Your task to perform on an android device: Open CNN.com Image 0: 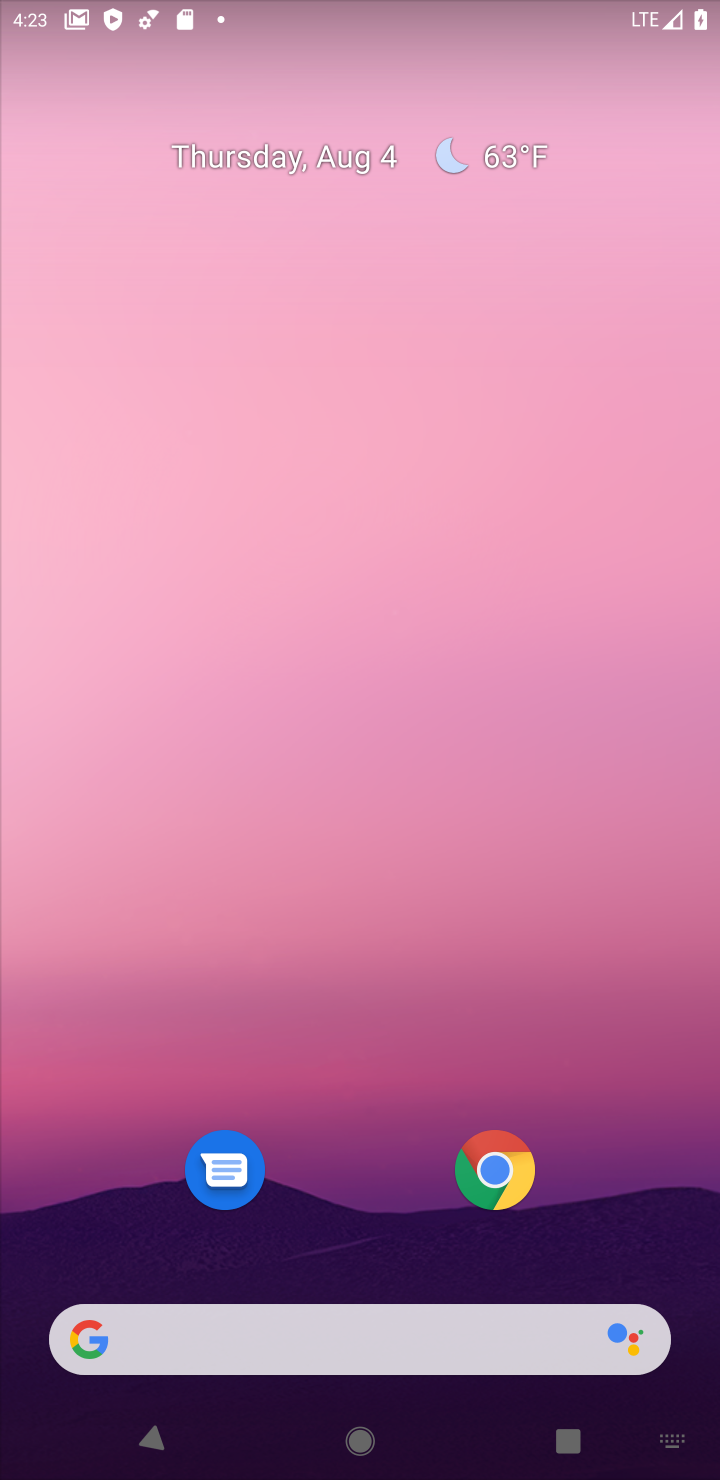
Step 0: click (508, 1168)
Your task to perform on an android device: Open CNN.com Image 1: 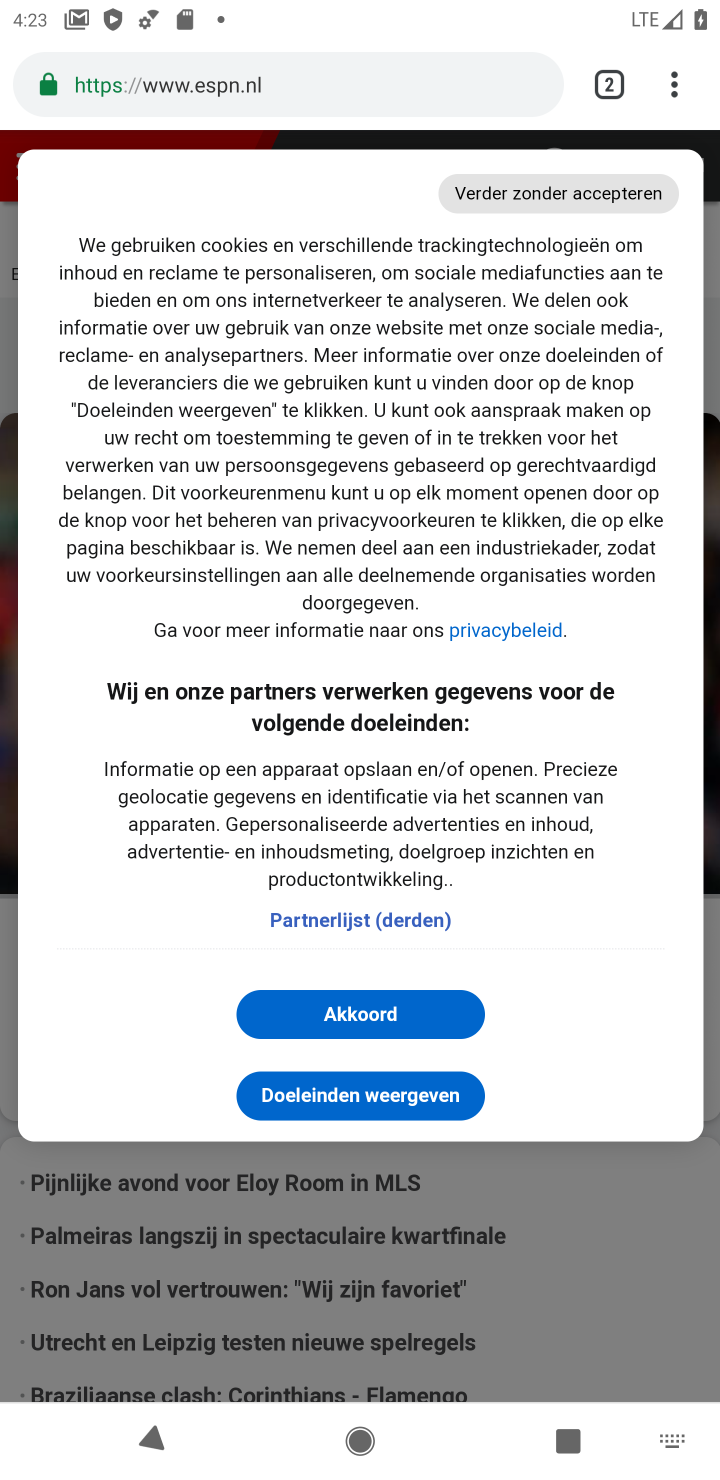
Step 1: click (427, 72)
Your task to perform on an android device: Open CNN.com Image 2: 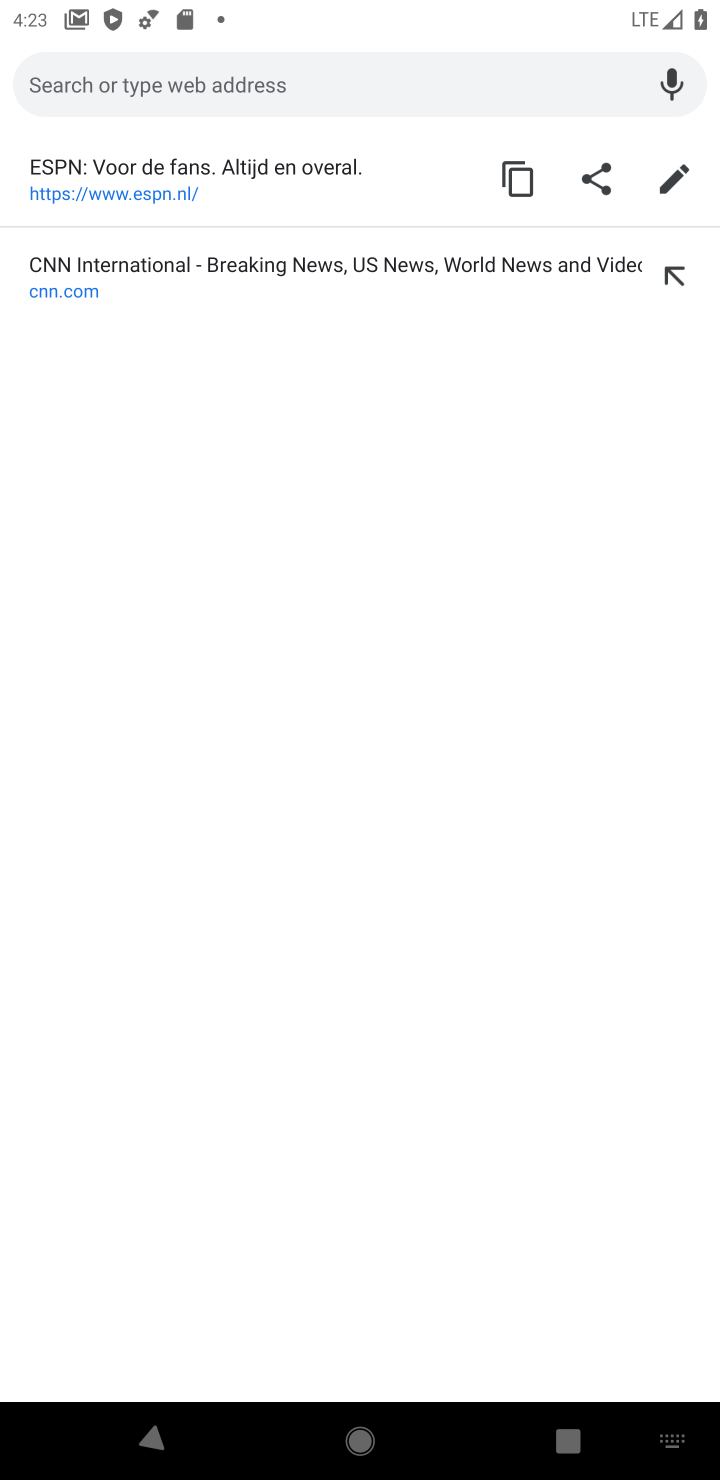
Step 2: type "cnn.com"
Your task to perform on an android device: Open CNN.com Image 3: 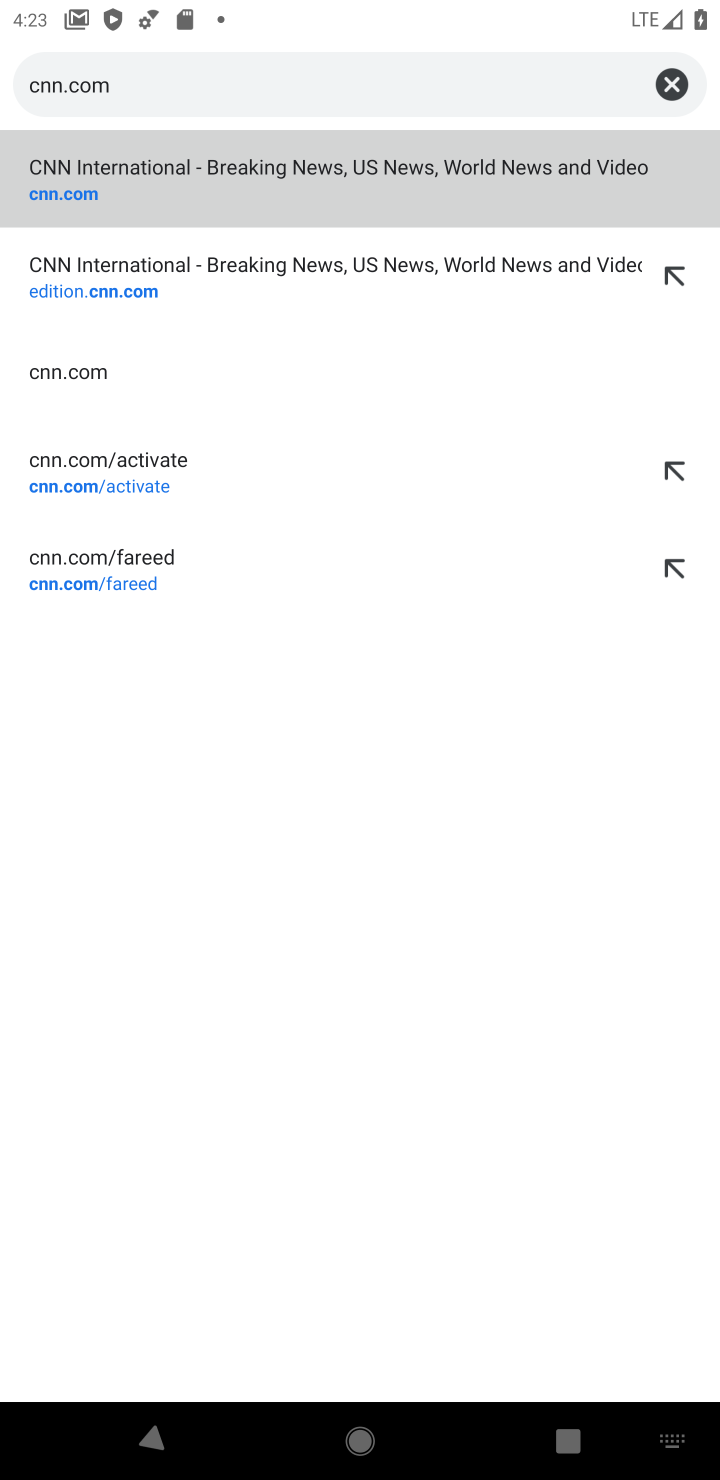
Step 3: click (309, 259)
Your task to perform on an android device: Open CNN.com Image 4: 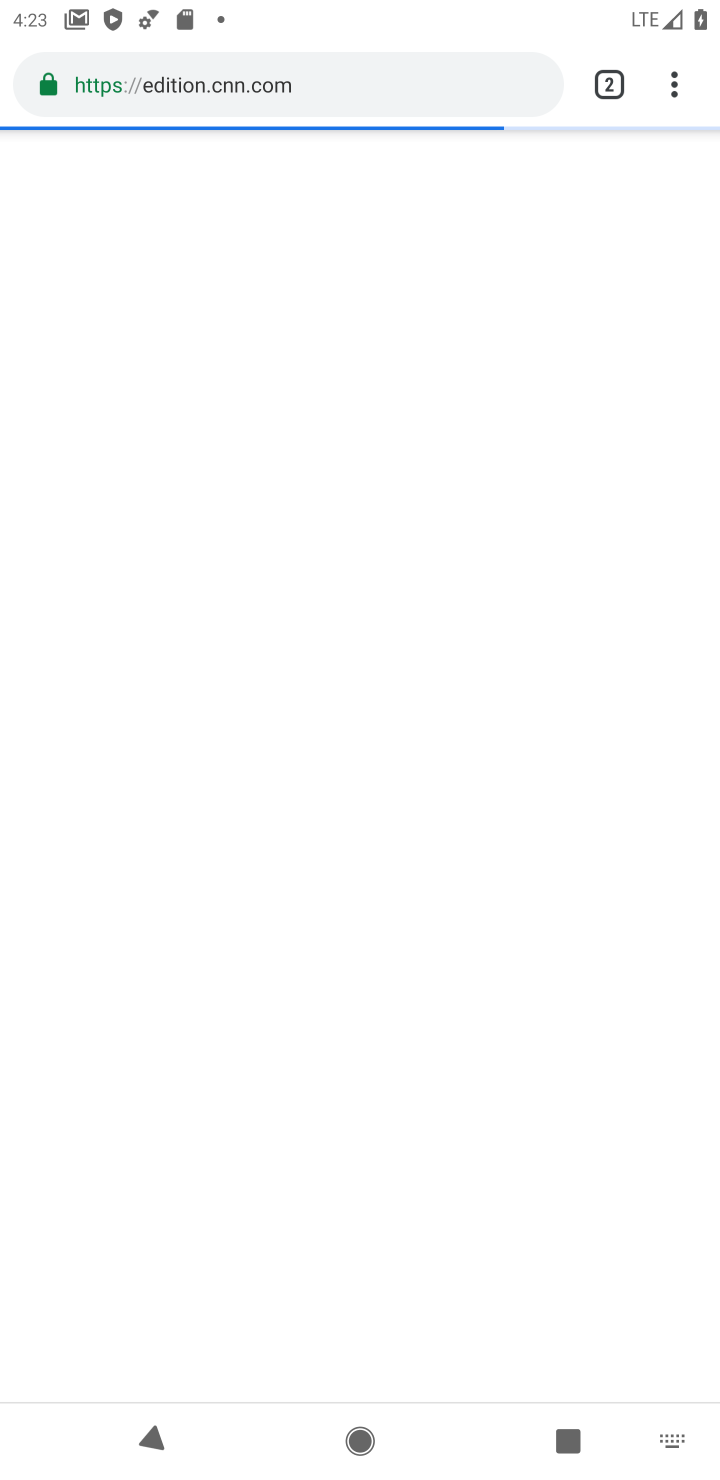
Step 4: task complete